Your task to perform on an android device: see creations saved in the google photos Image 0: 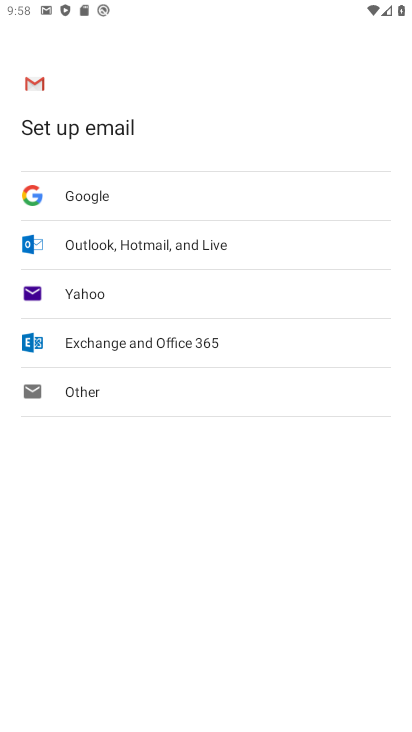
Step 0: press home button
Your task to perform on an android device: see creations saved in the google photos Image 1: 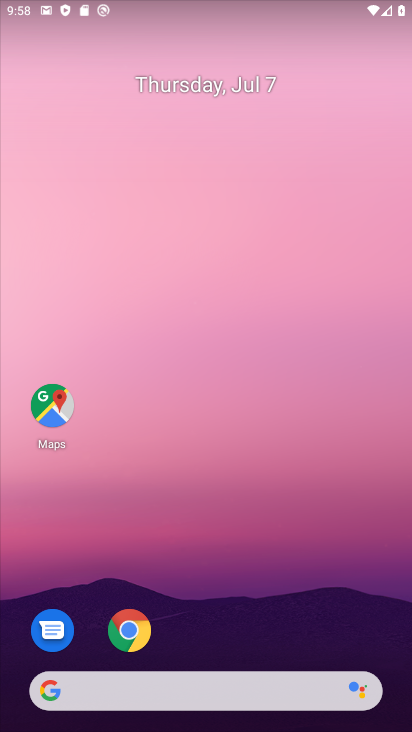
Step 1: drag from (20, 710) to (233, 19)
Your task to perform on an android device: see creations saved in the google photos Image 2: 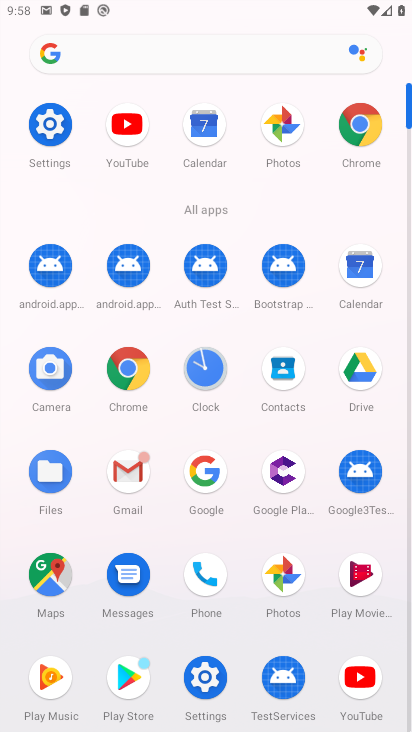
Step 2: click (292, 582)
Your task to perform on an android device: see creations saved in the google photos Image 3: 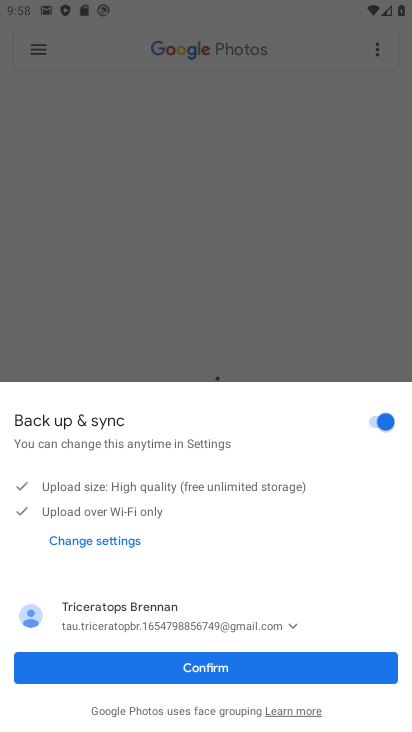
Step 3: click (294, 659)
Your task to perform on an android device: see creations saved in the google photos Image 4: 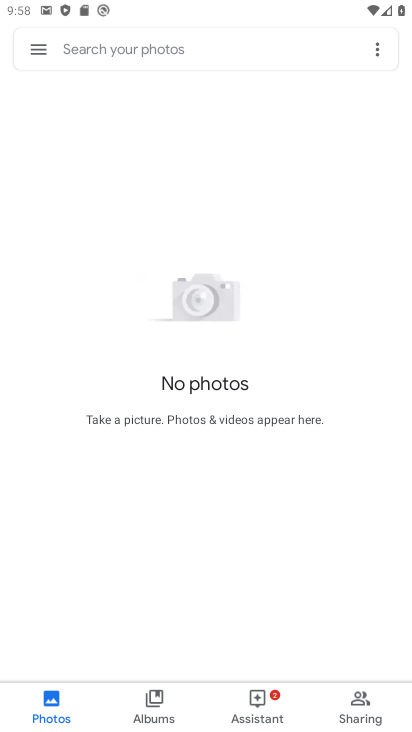
Step 4: click (148, 718)
Your task to perform on an android device: see creations saved in the google photos Image 5: 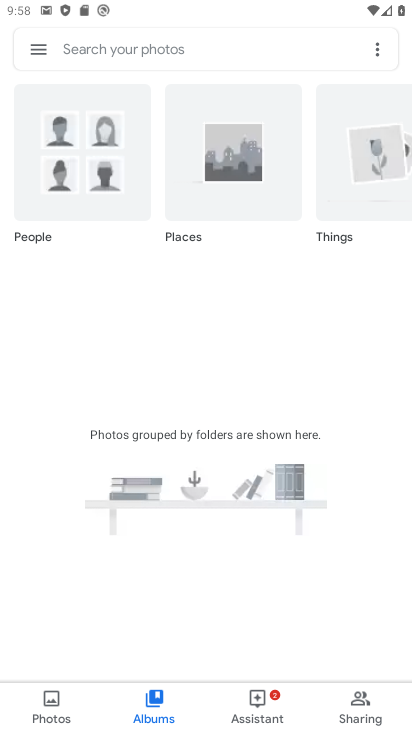
Step 5: task complete